Your task to perform on an android device: uninstall "Duolingo: language lessons" Image 0: 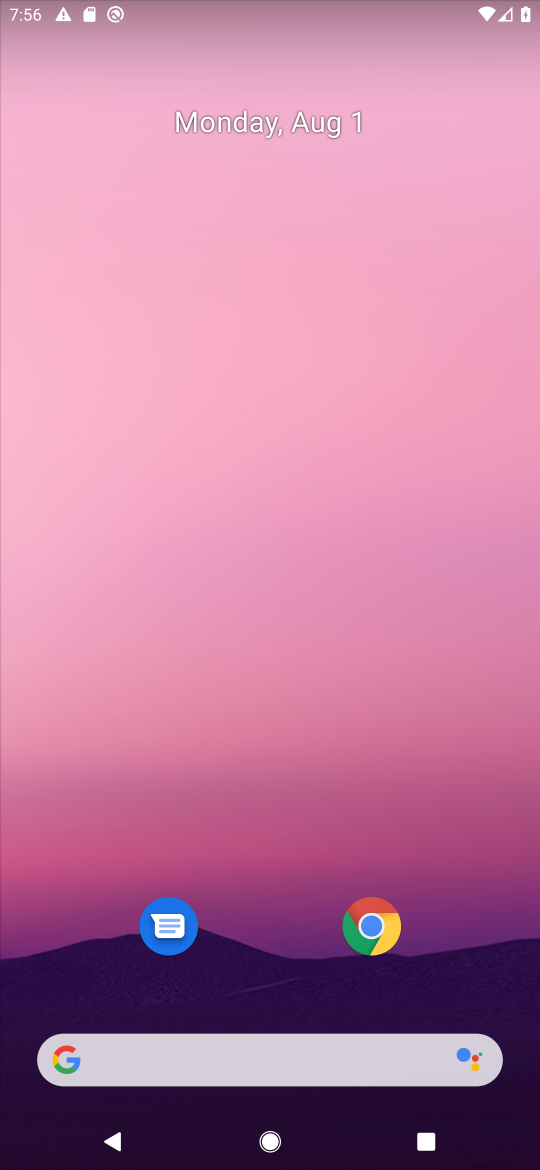
Step 0: press home button
Your task to perform on an android device: uninstall "Duolingo: language lessons" Image 1: 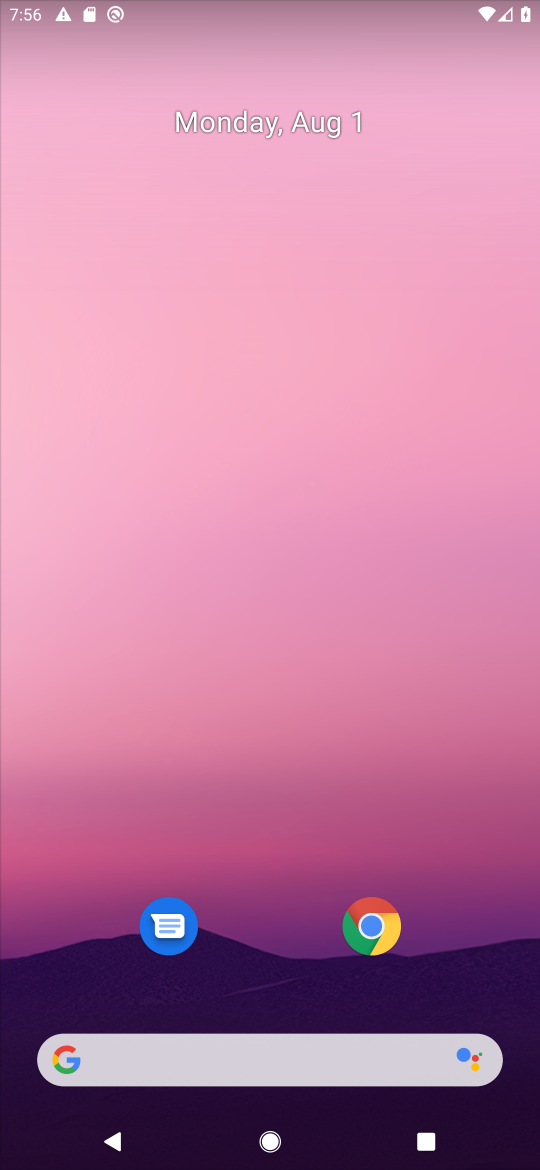
Step 1: drag from (278, 980) to (237, 232)
Your task to perform on an android device: uninstall "Duolingo: language lessons" Image 2: 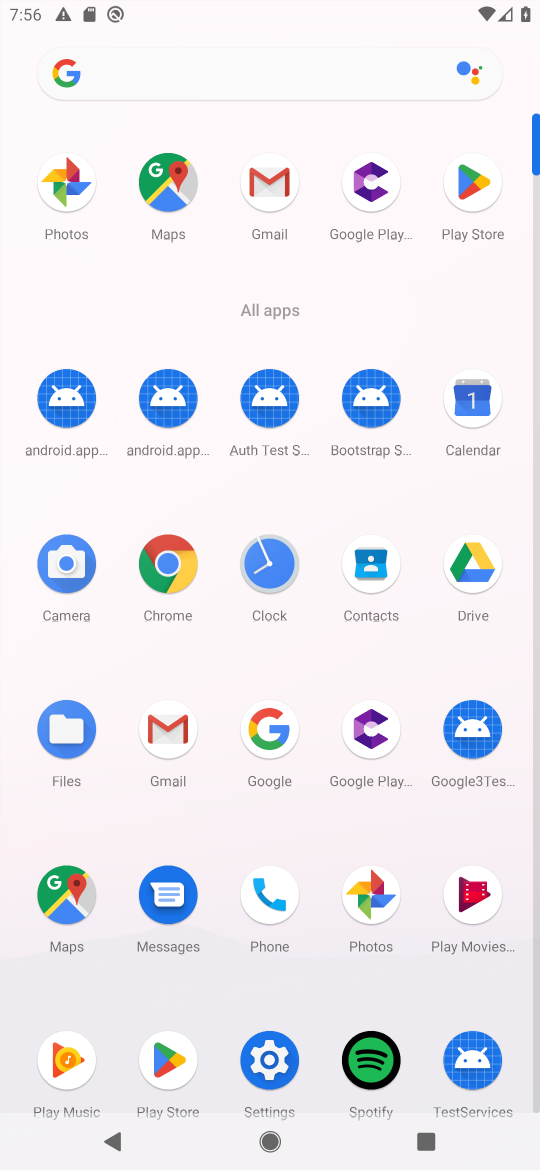
Step 2: click (473, 177)
Your task to perform on an android device: uninstall "Duolingo: language lessons" Image 3: 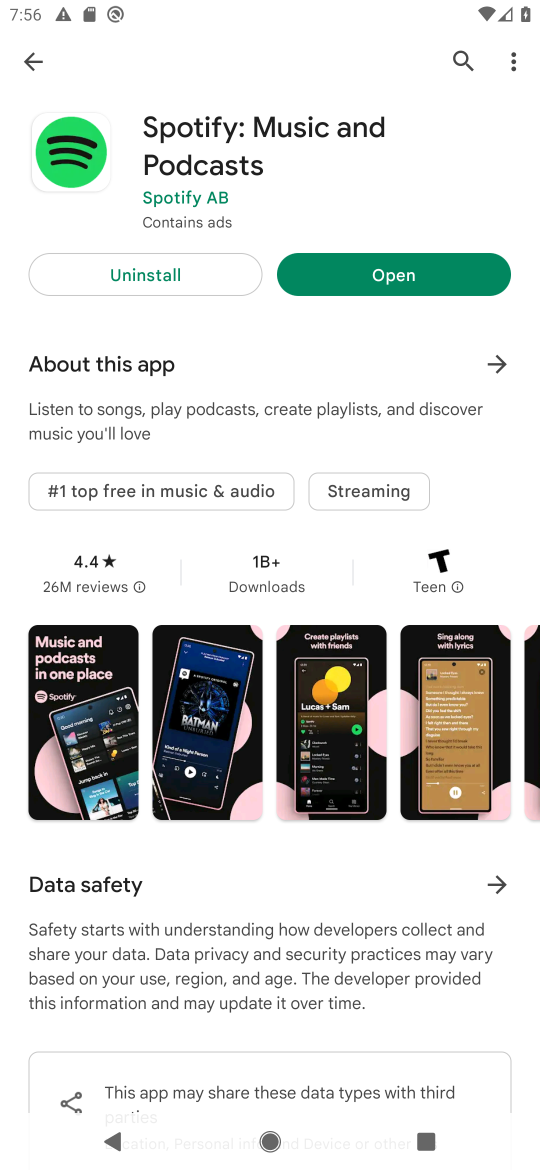
Step 3: click (455, 54)
Your task to perform on an android device: uninstall "Duolingo: language lessons" Image 4: 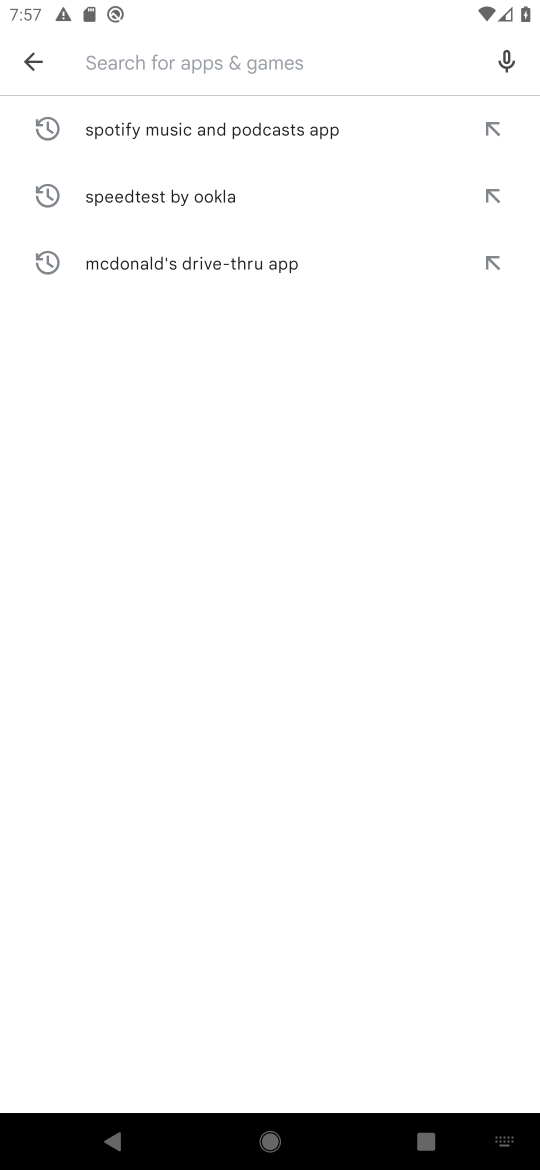
Step 4: type "Duolingo: language lessons"
Your task to perform on an android device: uninstall "Duolingo: language lessons" Image 5: 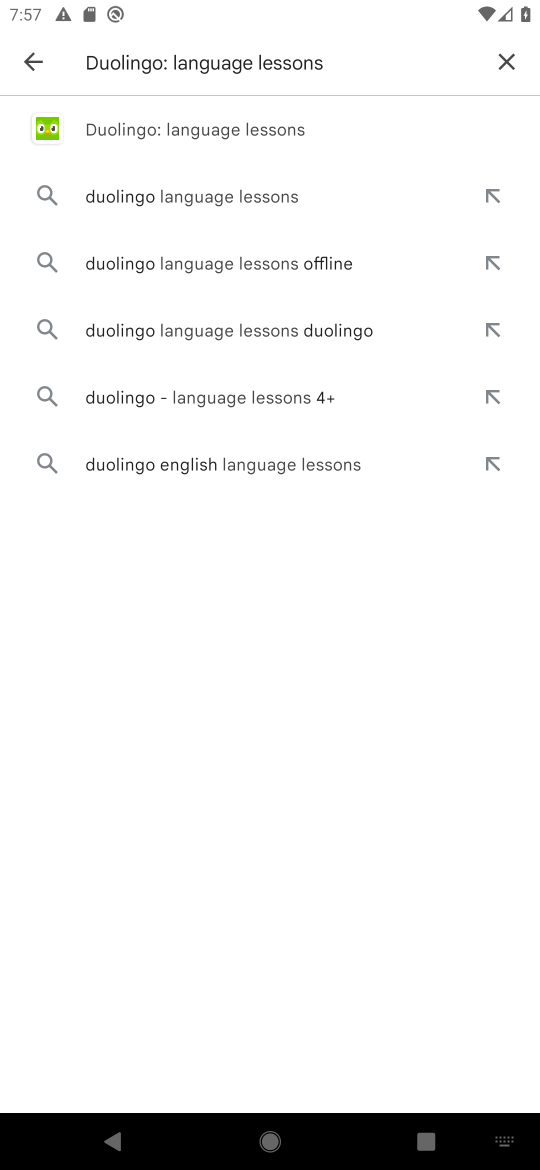
Step 5: click (133, 130)
Your task to perform on an android device: uninstall "Duolingo: language lessons" Image 6: 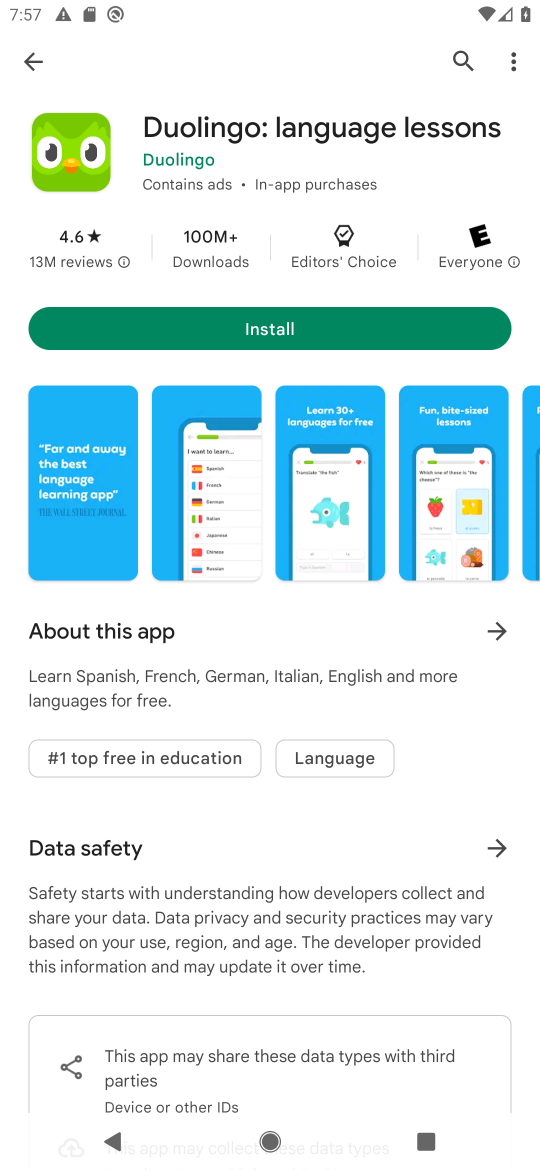
Step 6: task complete